Your task to perform on an android device: turn off improve location accuracy Image 0: 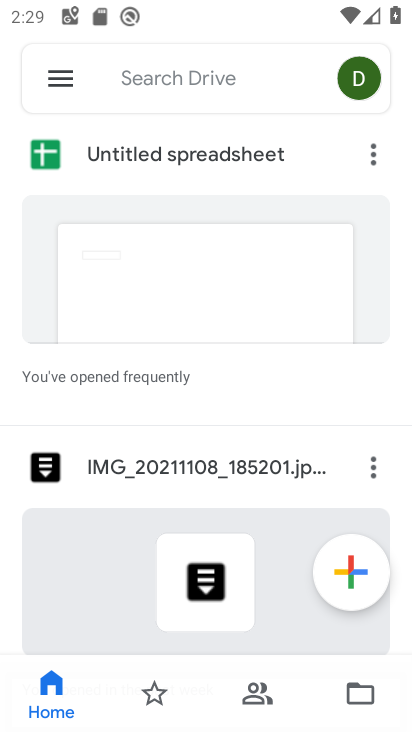
Step 0: drag from (172, 523) to (227, 398)
Your task to perform on an android device: turn off improve location accuracy Image 1: 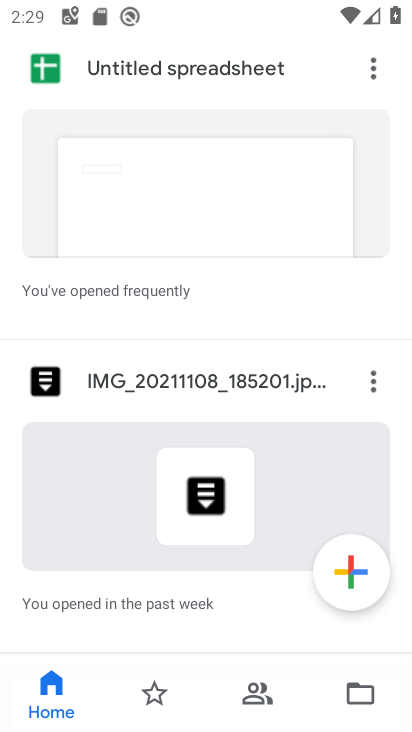
Step 1: press home button
Your task to perform on an android device: turn off improve location accuracy Image 2: 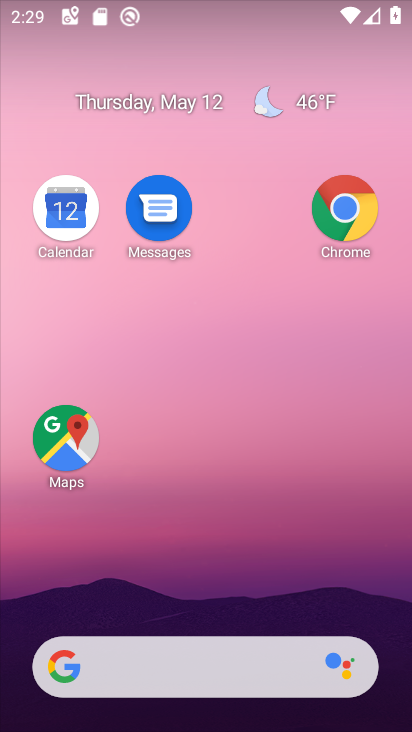
Step 2: drag from (170, 597) to (304, 26)
Your task to perform on an android device: turn off improve location accuracy Image 3: 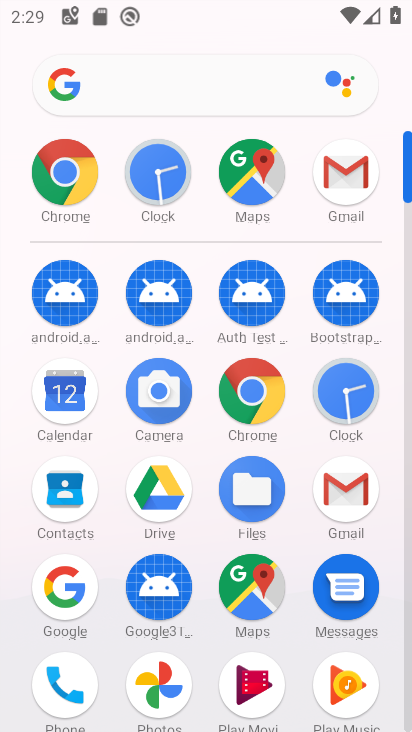
Step 3: drag from (212, 645) to (214, 308)
Your task to perform on an android device: turn off improve location accuracy Image 4: 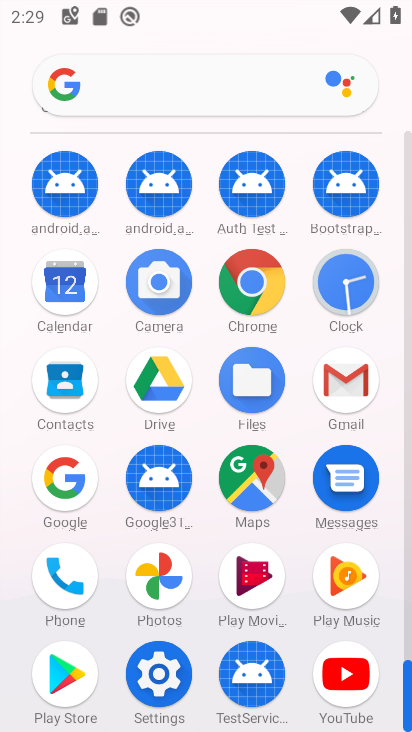
Step 4: click (166, 653)
Your task to perform on an android device: turn off improve location accuracy Image 5: 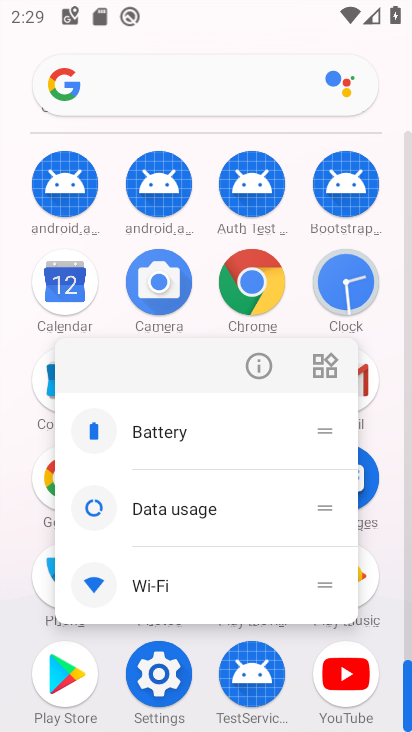
Step 5: click (257, 362)
Your task to perform on an android device: turn off improve location accuracy Image 6: 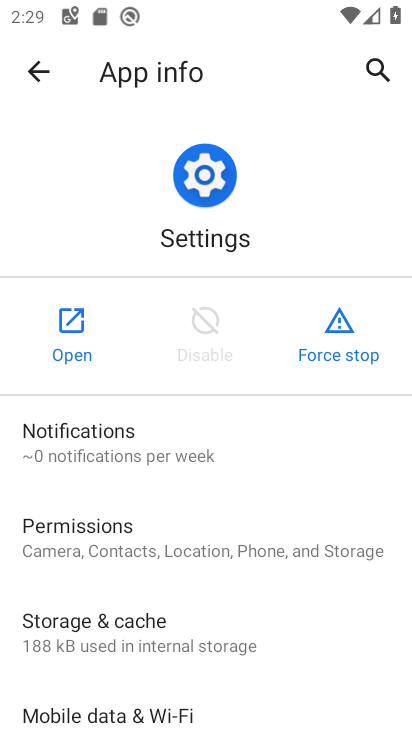
Step 6: click (72, 348)
Your task to perform on an android device: turn off improve location accuracy Image 7: 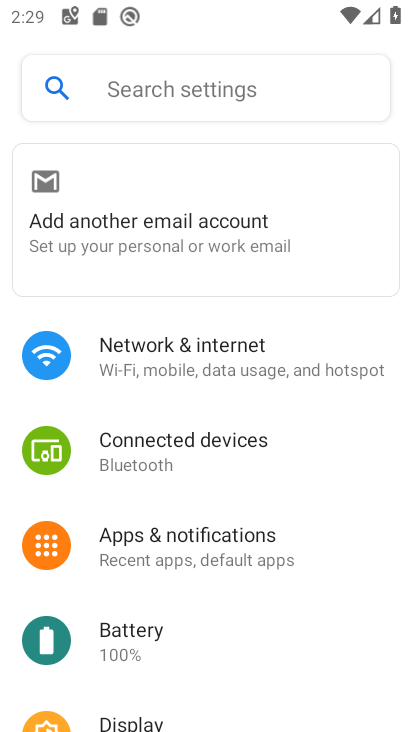
Step 7: drag from (161, 614) to (307, 139)
Your task to perform on an android device: turn off improve location accuracy Image 8: 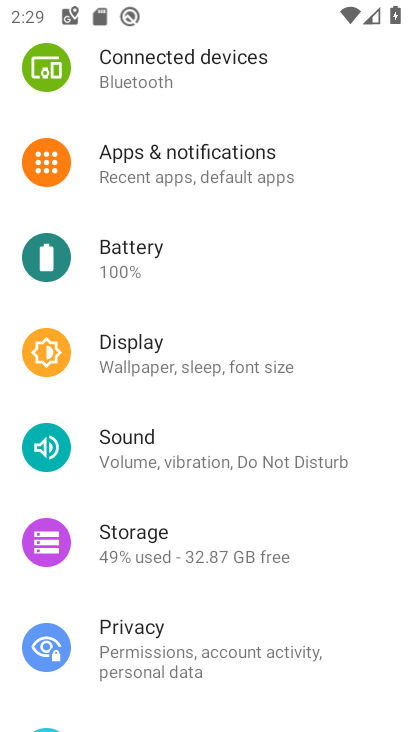
Step 8: drag from (204, 657) to (279, 201)
Your task to perform on an android device: turn off improve location accuracy Image 9: 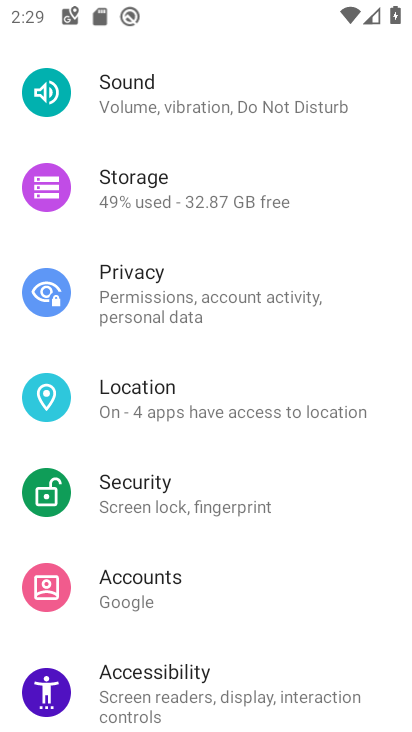
Step 9: click (206, 421)
Your task to perform on an android device: turn off improve location accuracy Image 10: 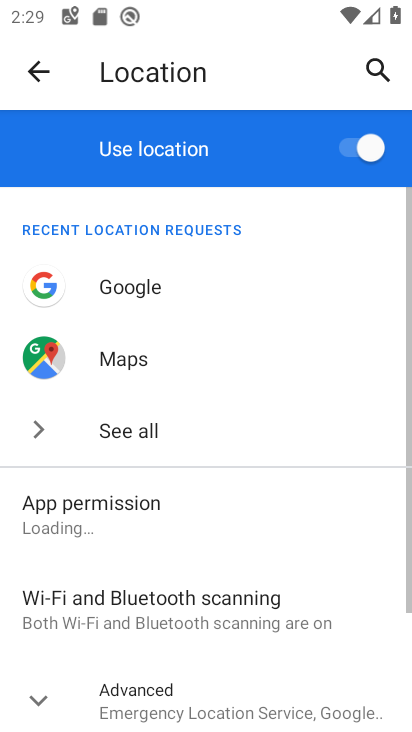
Step 10: drag from (165, 589) to (300, 248)
Your task to perform on an android device: turn off improve location accuracy Image 11: 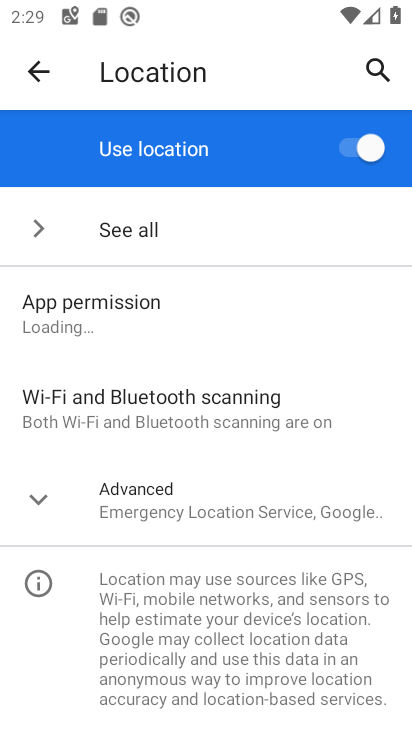
Step 11: click (150, 485)
Your task to perform on an android device: turn off improve location accuracy Image 12: 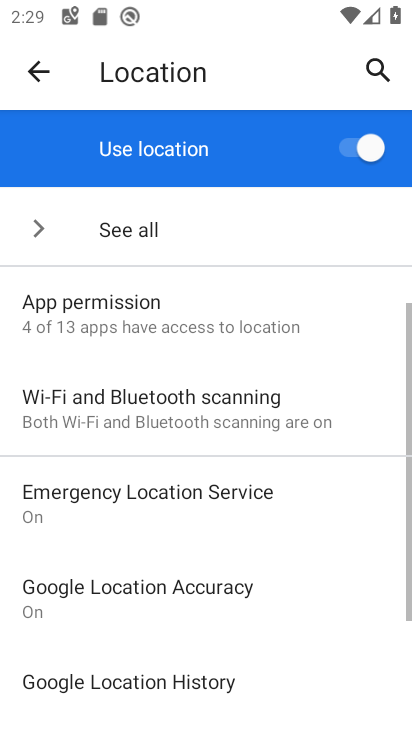
Step 12: drag from (216, 655) to (333, 161)
Your task to perform on an android device: turn off improve location accuracy Image 13: 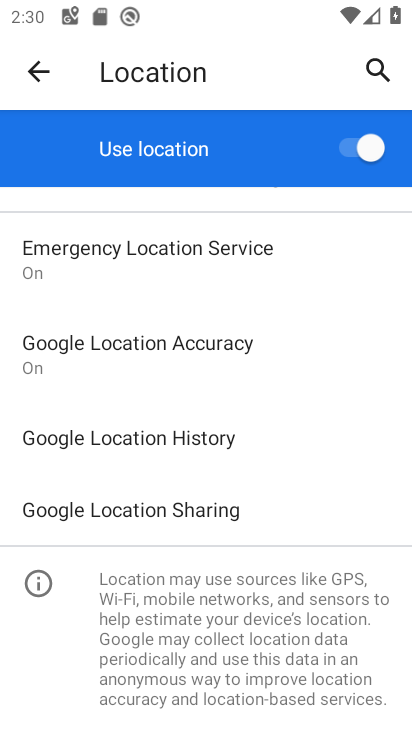
Step 13: click (179, 349)
Your task to perform on an android device: turn off improve location accuracy Image 14: 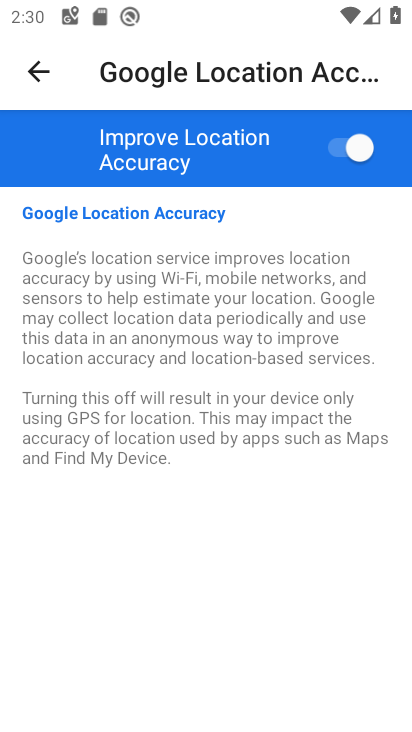
Step 14: click (355, 148)
Your task to perform on an android device: turn off improve location accuracy Image 15: 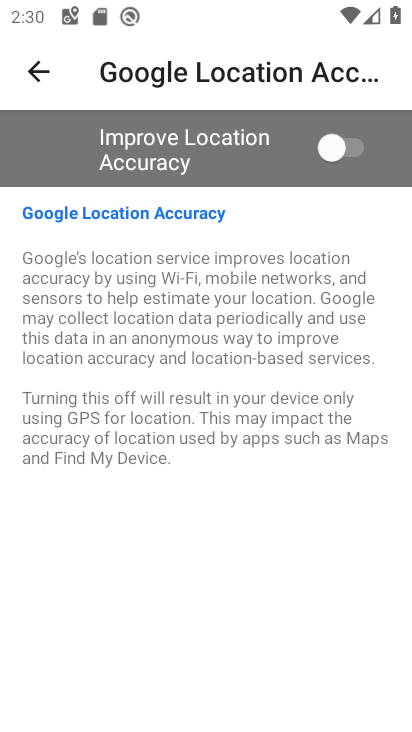
Step 15: task complete